Your task to perform on an android device: Look up the best rated headphones on Amazon. Image 0: 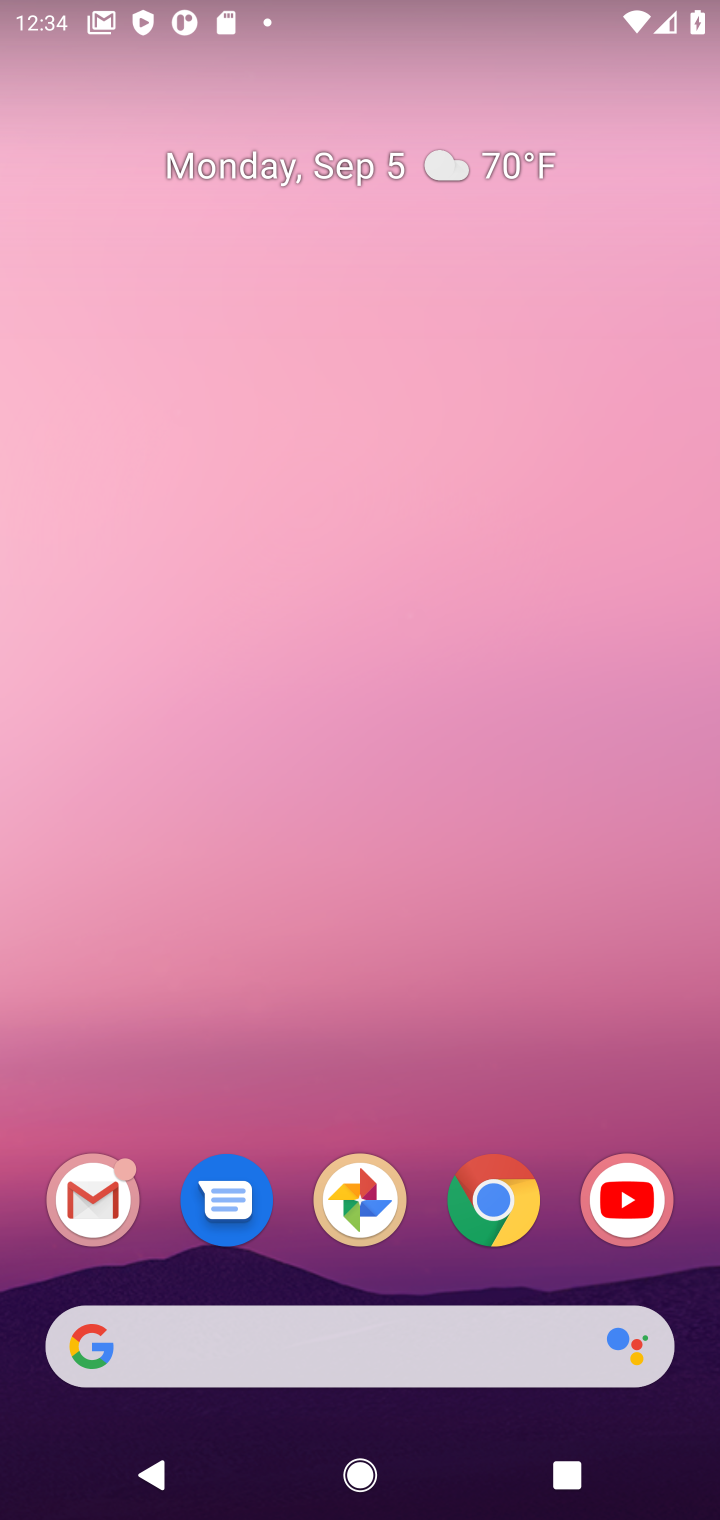
Step 0: click (381, 122)
Your task to perform on an android device: Look up the best rated headphones on Amazon. Image 1: 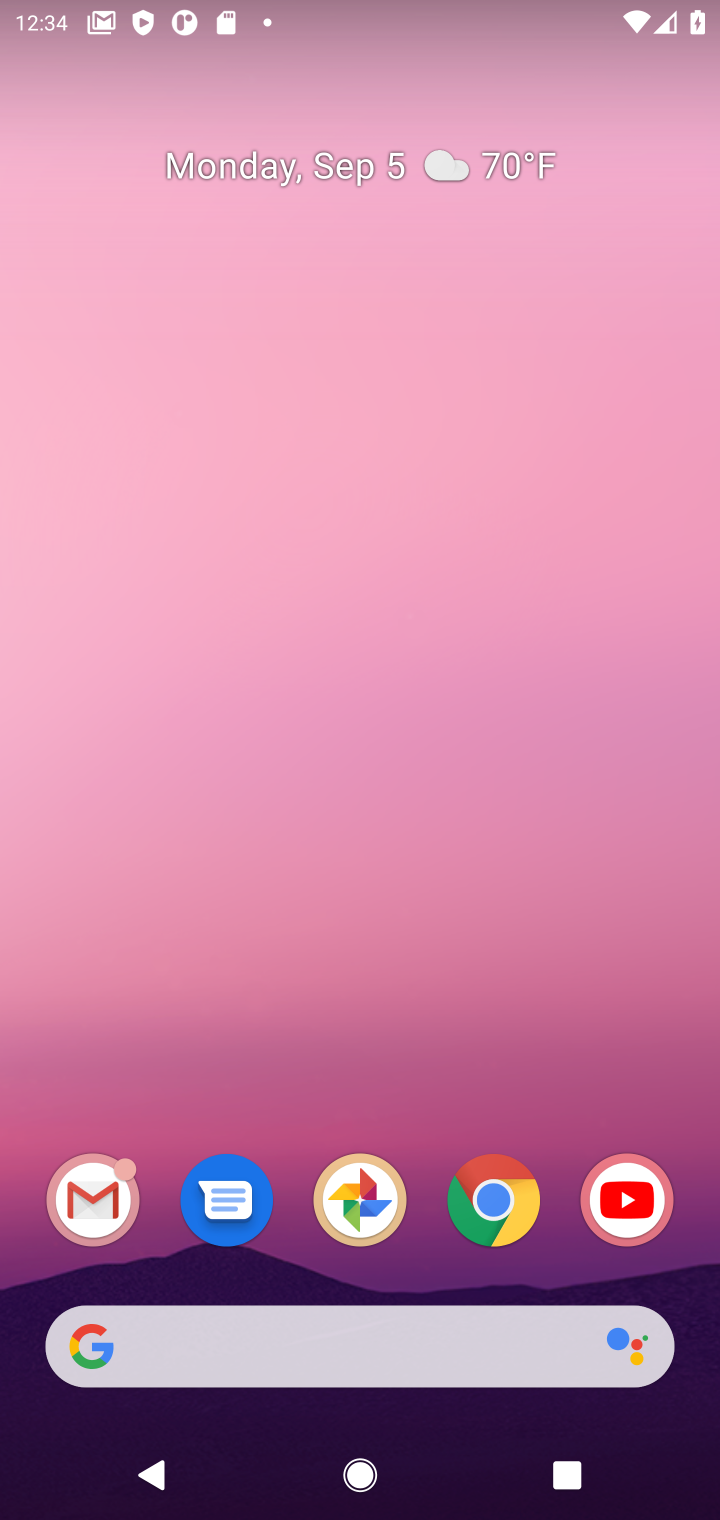
Step 1: drag from (406, 1301) to (388, 431)
Your task to perform on an android device: Look up the best rated headphones on Amazon. Image 2: 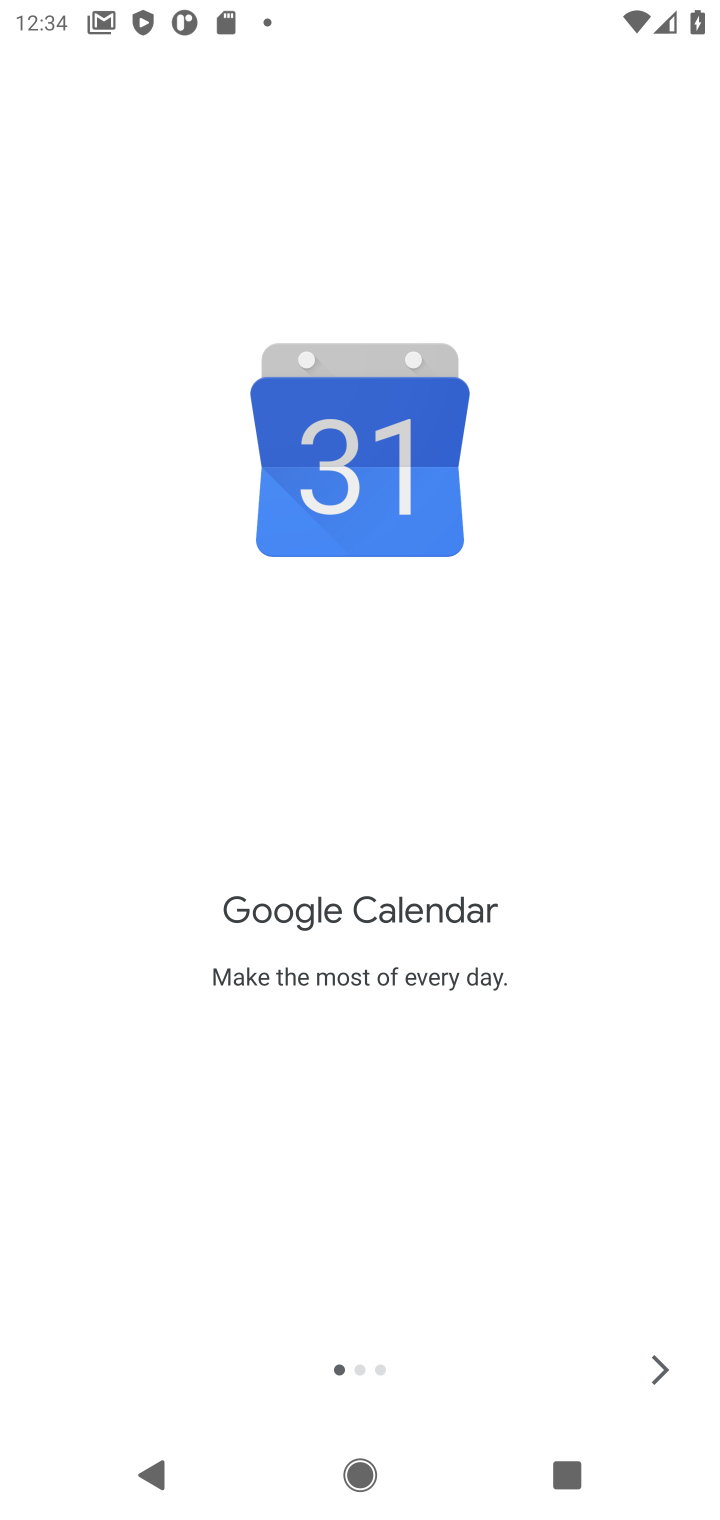
Step 2: press home button
Your task to perform on an android device: Look up the best rated headphones on Amazon. Image 3: 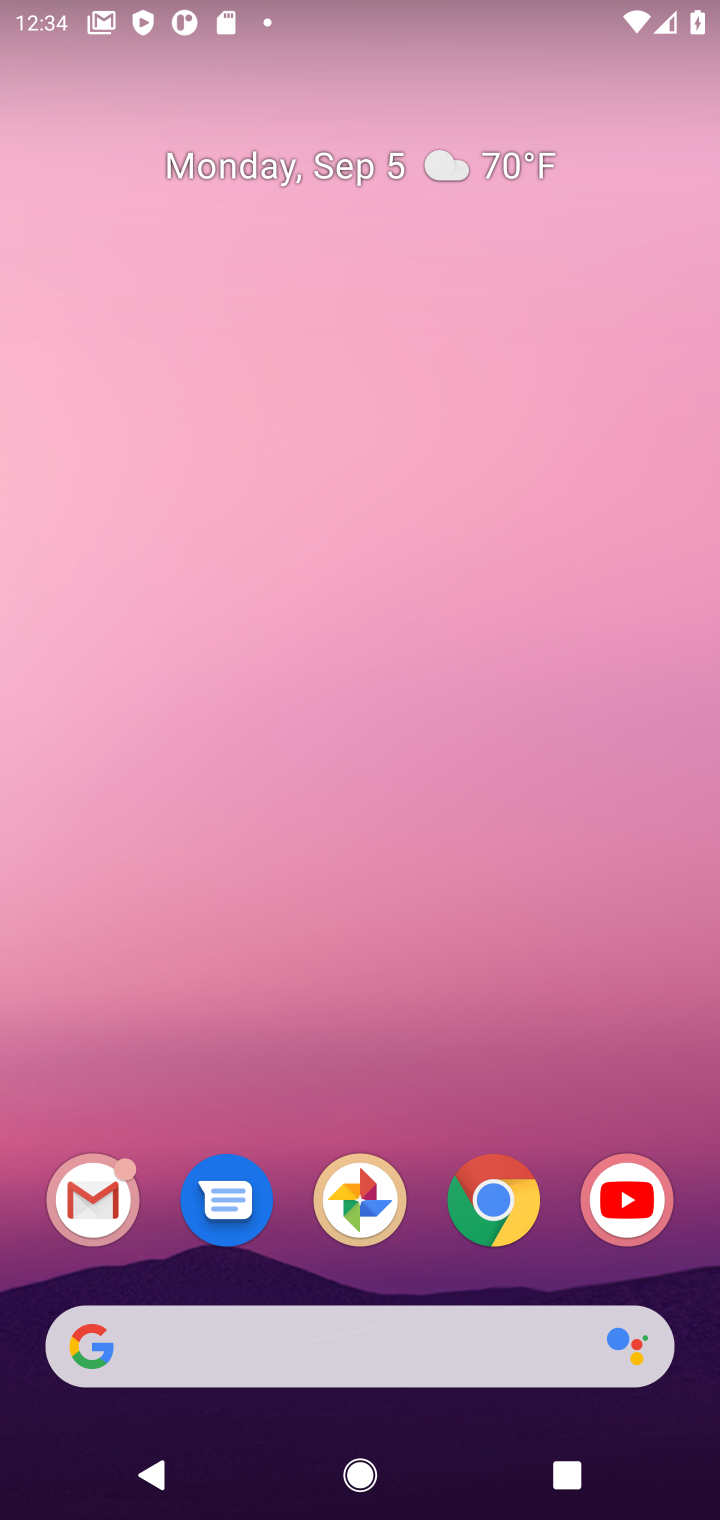
Step 3: click (454, 674)
Your task to perform on an android device: Look up the best rated headphones on Amazon. Image 4: 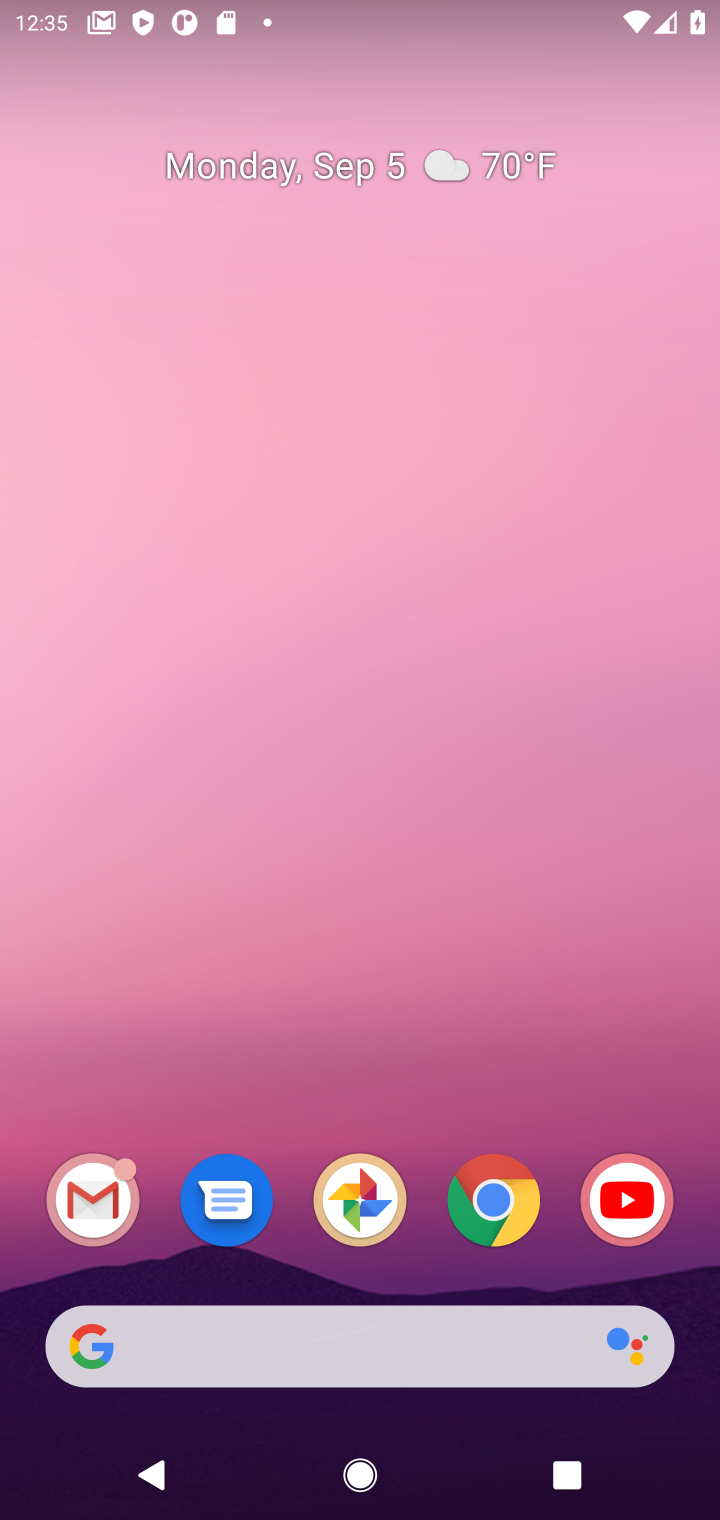
Step 4: click (509, 534)
Your task to perform on an android device: Look up the best rated headphones on Amazon. Image 5: 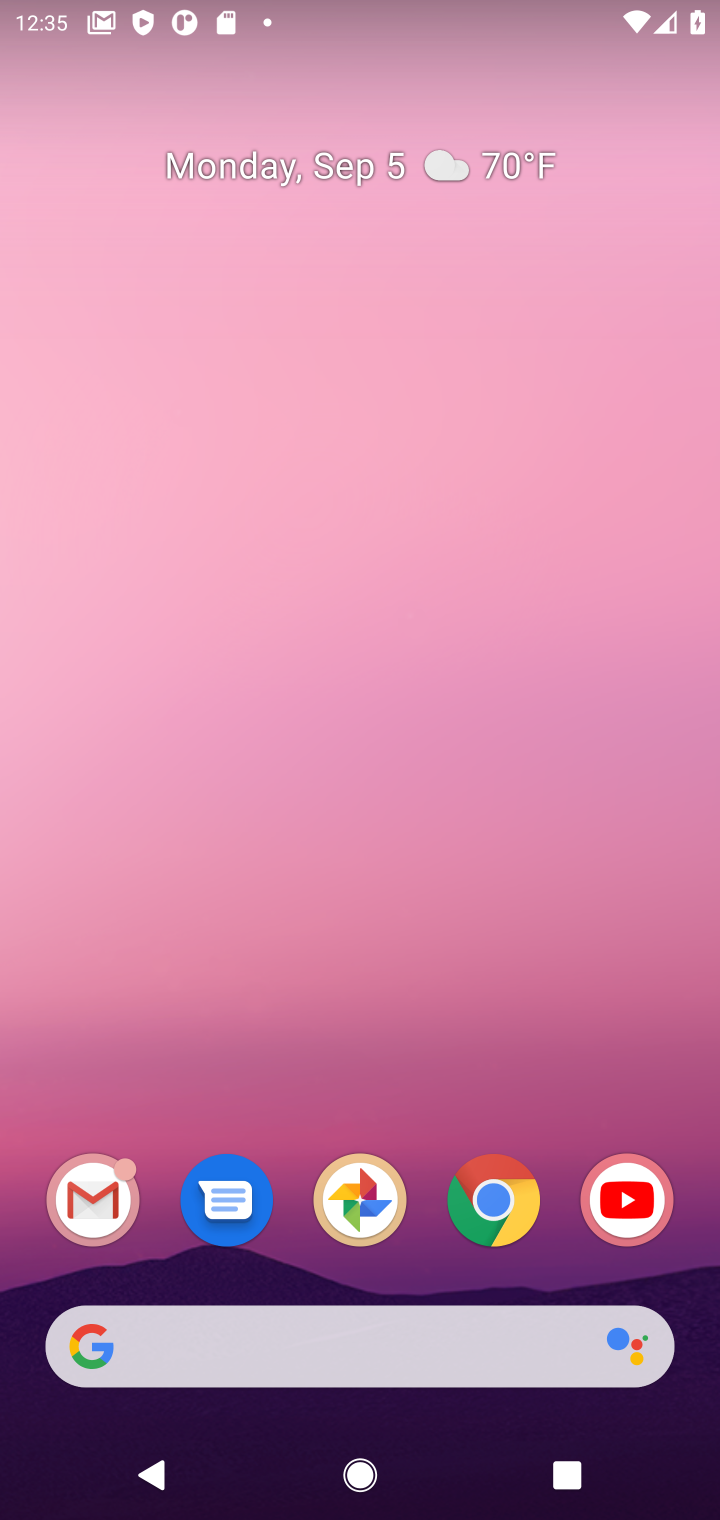
Step 5: drag from (457, 1186) to (515, 63)
Your task to perform on an android device: Look up the best rated headphones on Amazon. Image 6: 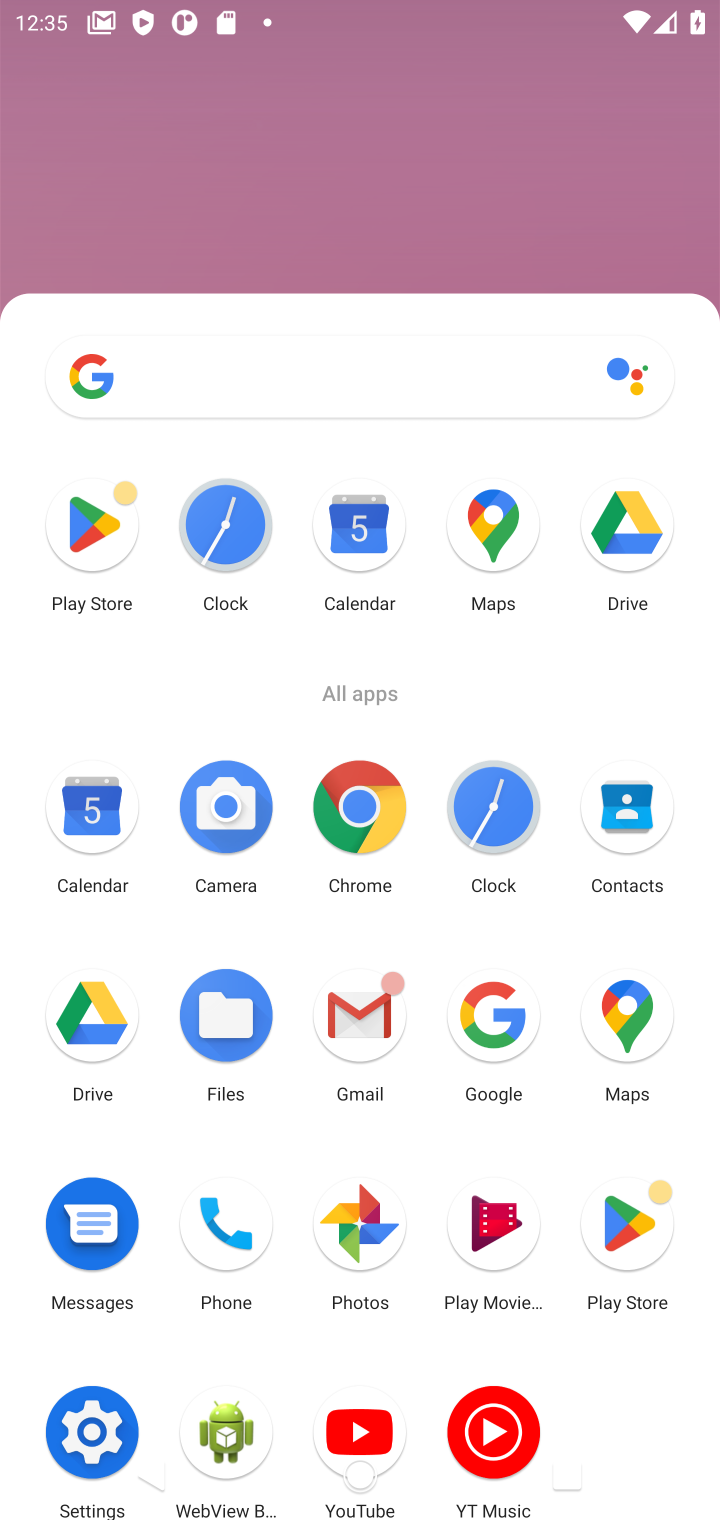
Step 6: click (334, 777)
Your task to perform on an android device: Look up the best rated headphones on Amazon. Image 7: 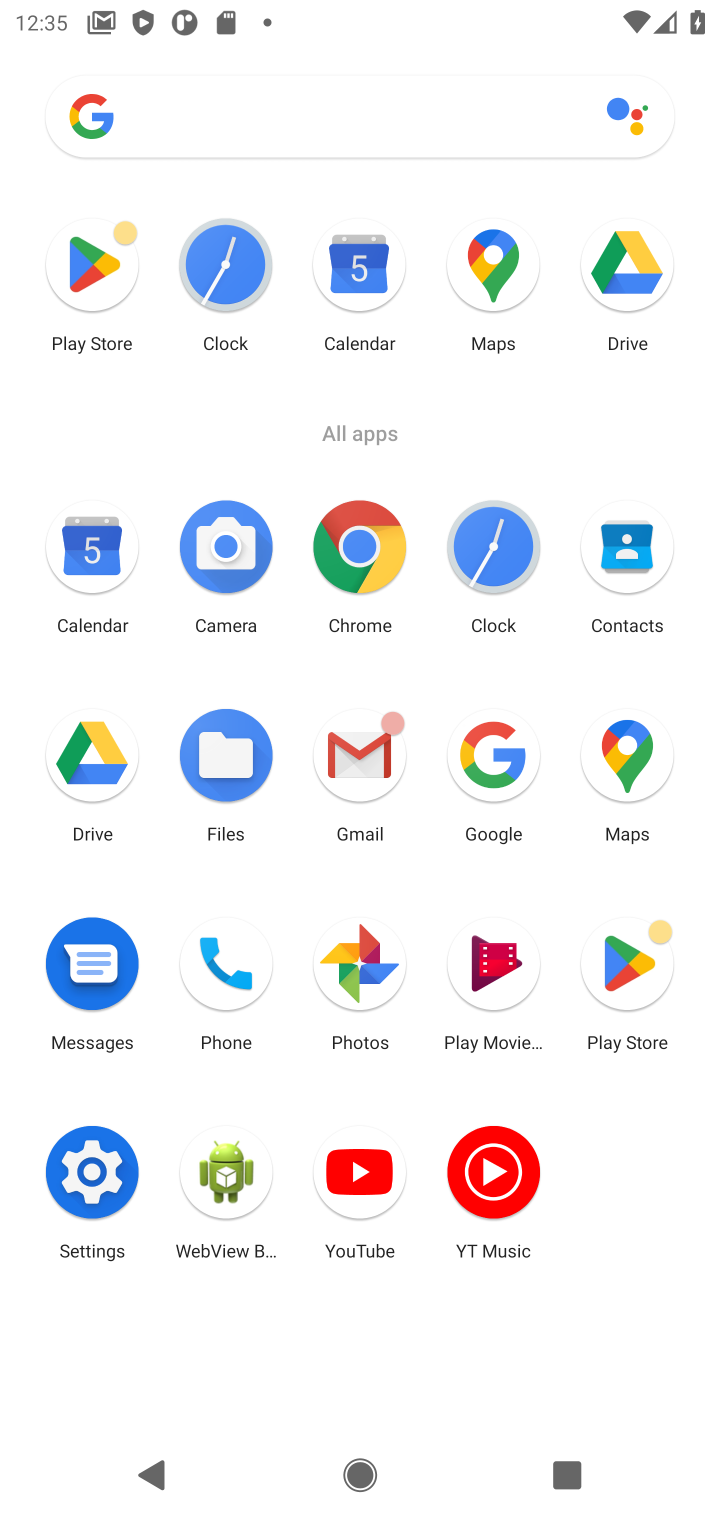
Step 7: click (379, 583)
Your task to perform on an android device: Look up the best rated headphones on Amazon. Image 8: 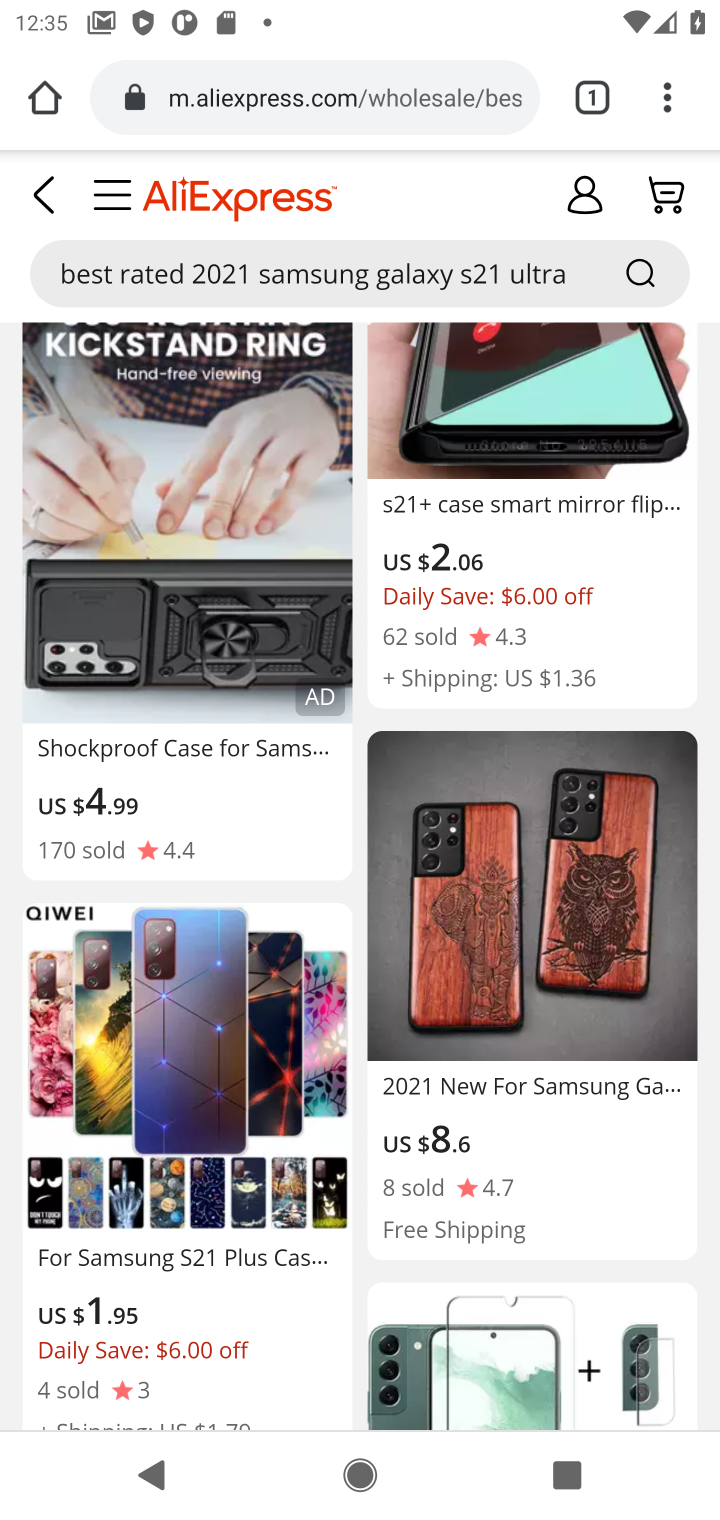
Step 8: click (353, 92)
Your task to perform on an android device: Look up the best rated headphones on Amazon. Image 9: 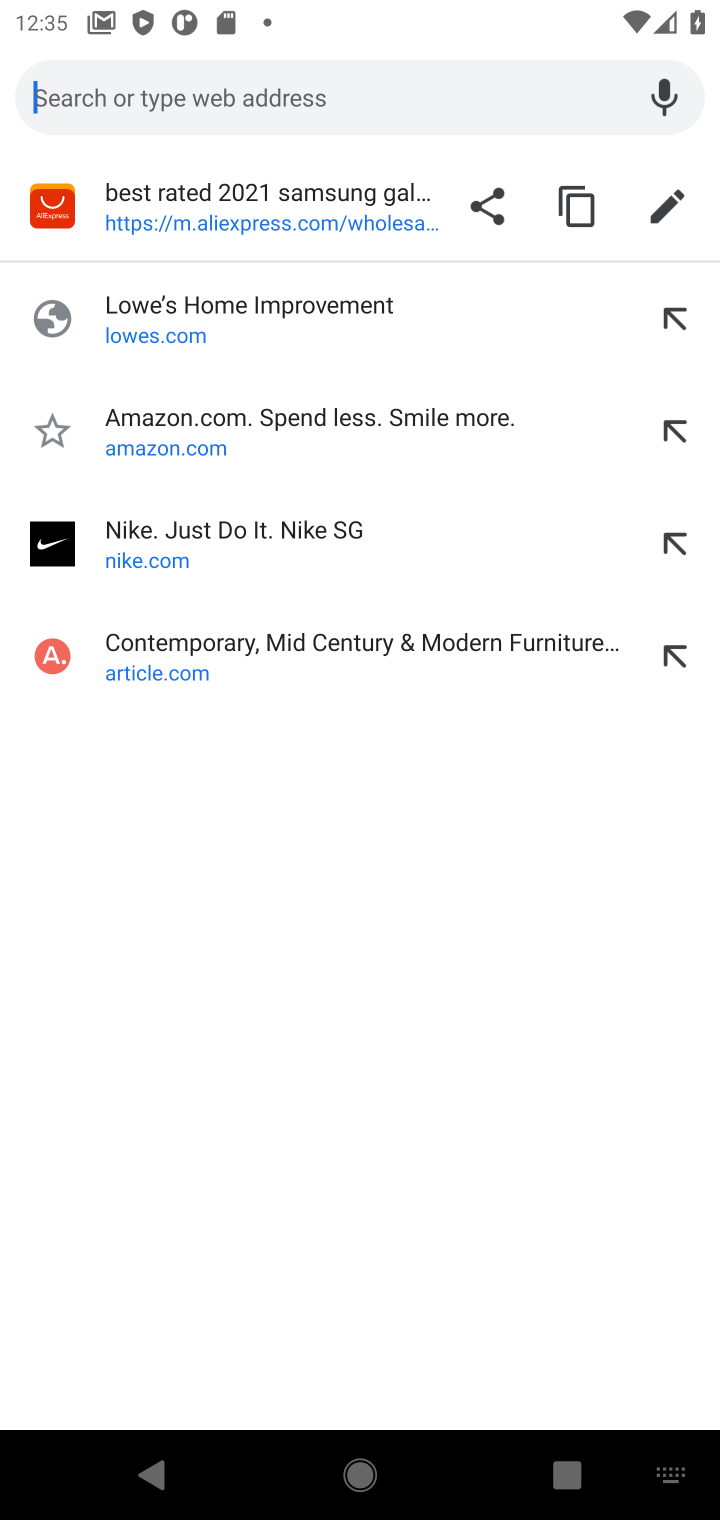
Step 9: type "amazon"
Your task to perform on an android device: Look up the best rated headphones on Amazon. Image 10: 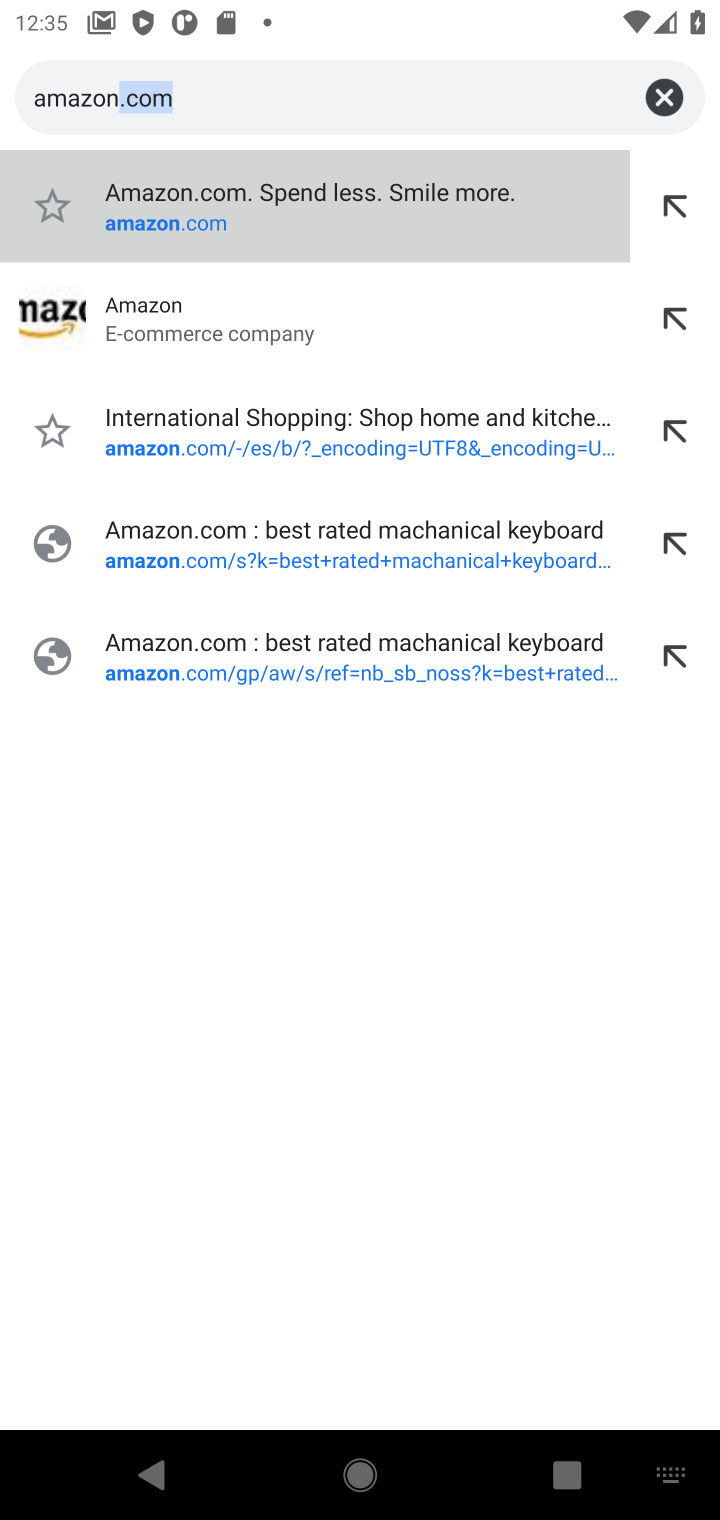
Step 10: click (253, 203)
Your task to perform on an android device: Look up the best rated headphones on Amazon. Image 11: 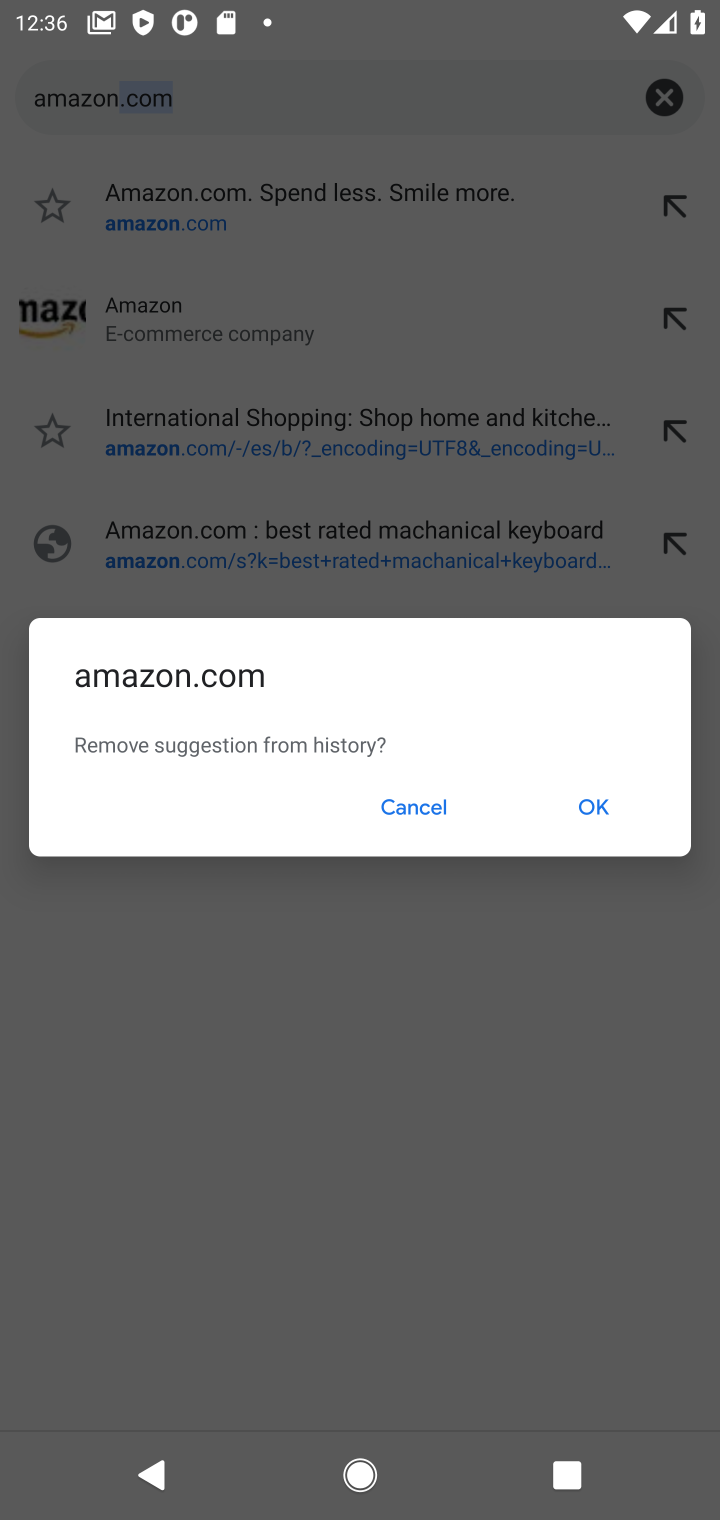
Step 11: click (100, 230)
Your task to perform on an android device: Look up the best rated headphones on Amazon. Image 12: 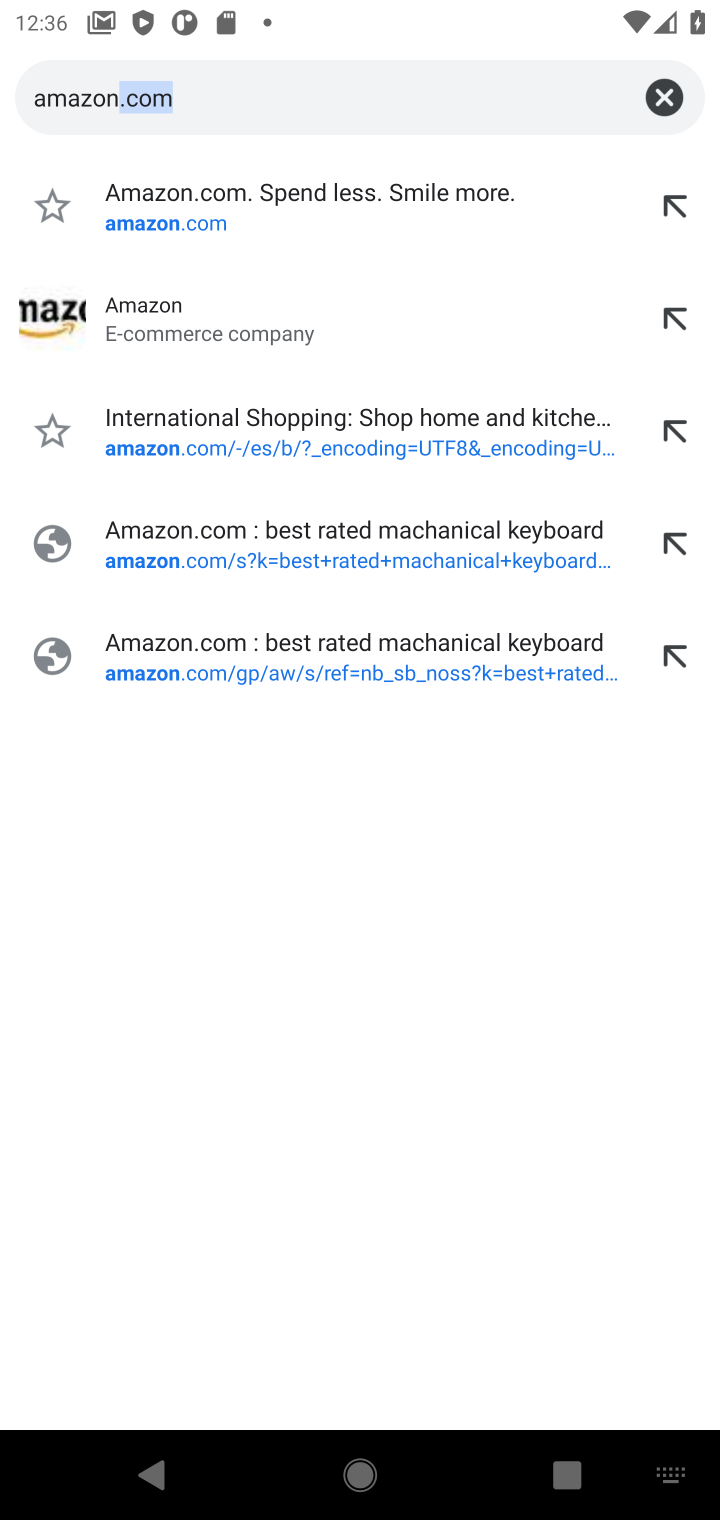
Step 12: click (98, 195)
Your task to perform on an android device: Look up the best rated headphones on Amazon. Image 13: 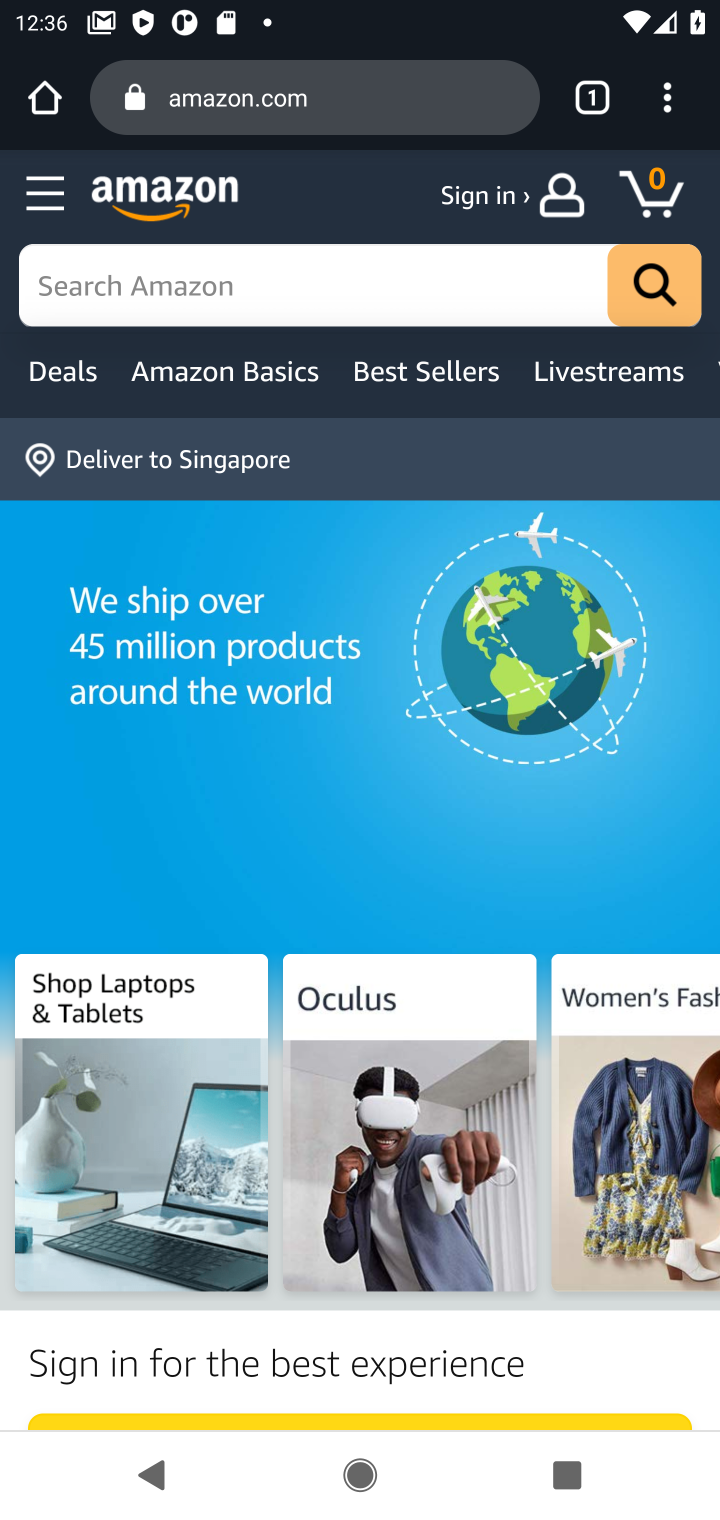
Step 13: click (443, 296)
Your task to perform on an android device: Look up the best rated headphones on Amazon. Image 14: 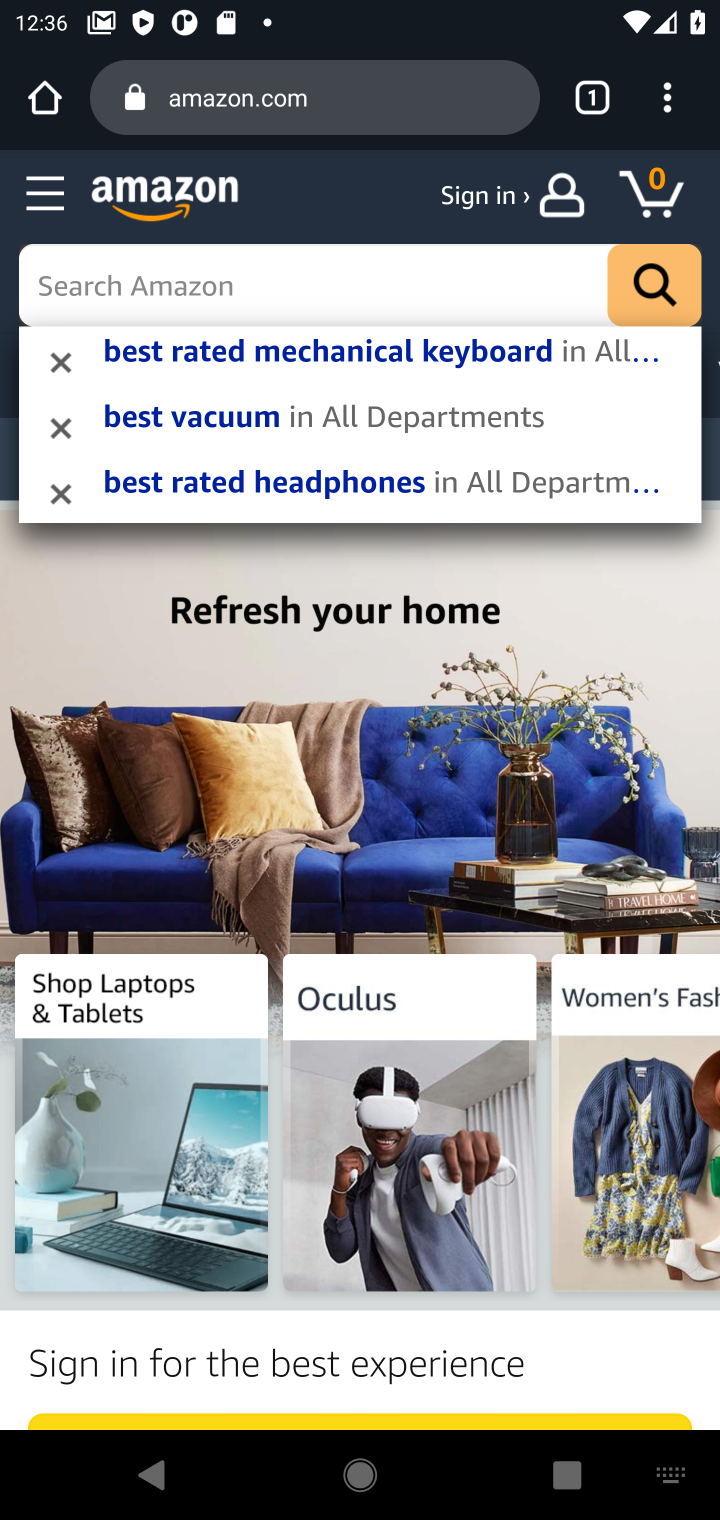
Step 14: type "best rated headphones"
Your task to perform on an android device: Look up the best rated headphones on Amazon. Image 15: 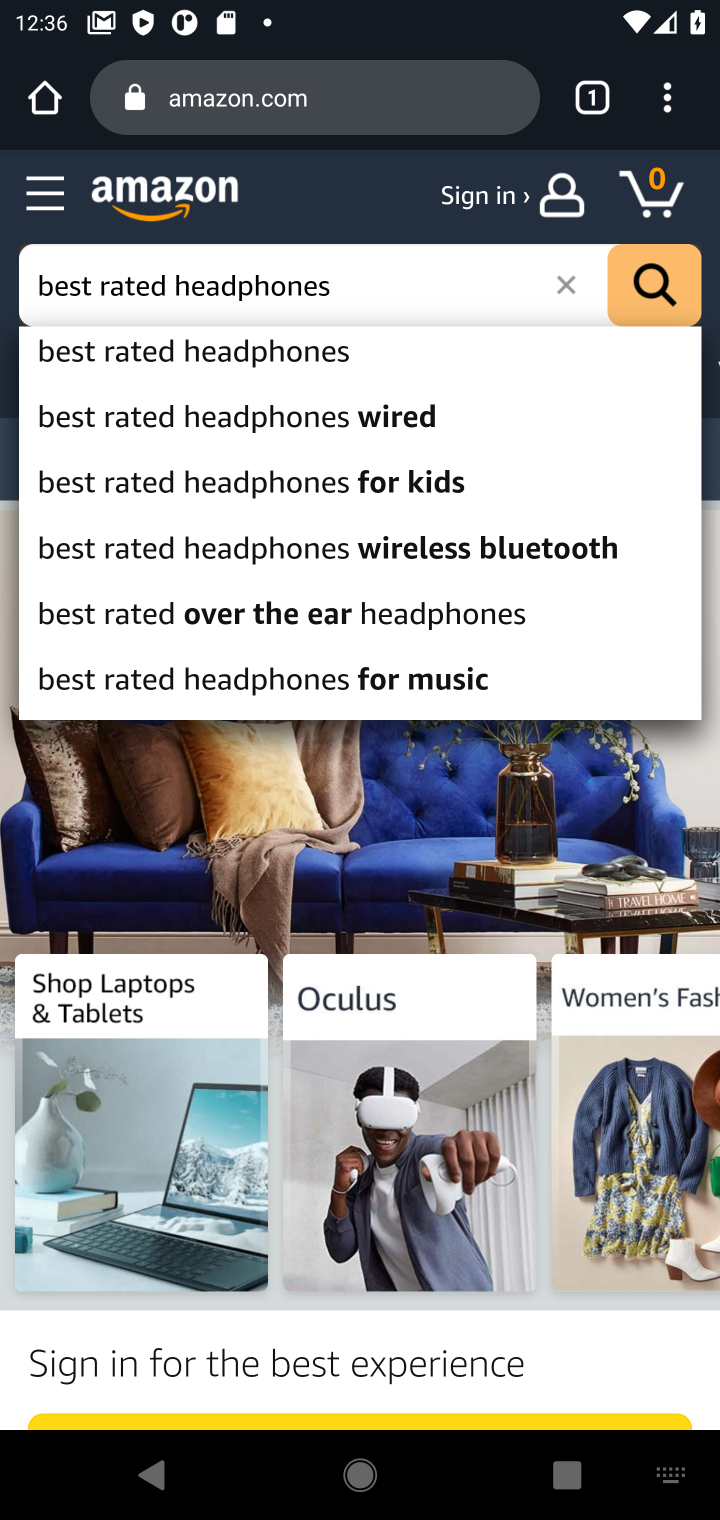
Step 15: click (158, 339)
Your task to perform on an android device: Look up the best rated headphones on Amazon. Image 16: 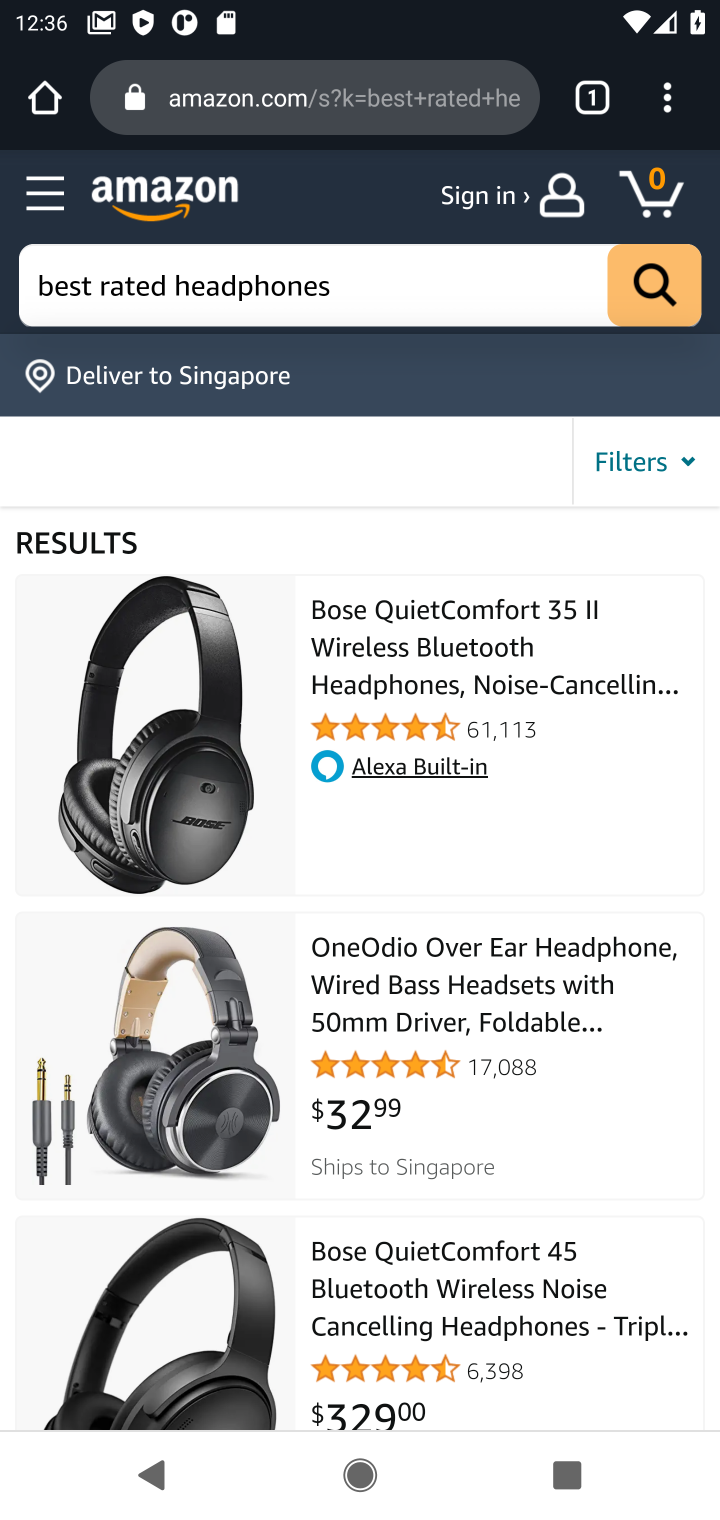
Step 16: task complete